Your task to perform on an android device: turn off sleep mode Image 0: 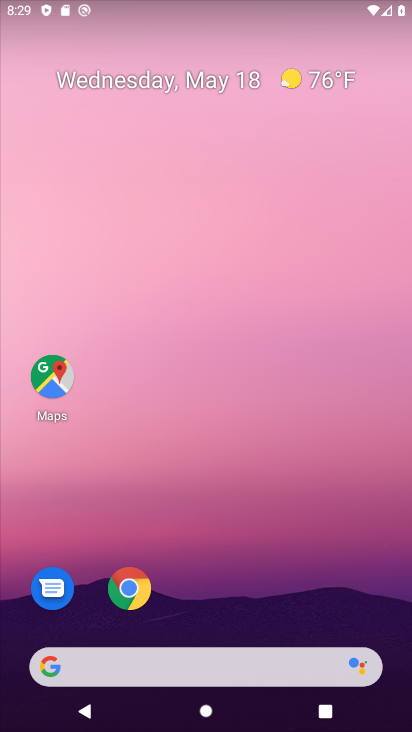
Step 0: drag from (303, 619) to (329, 208)
Your task to perform on an android device: turn off sleep mode Image 1: 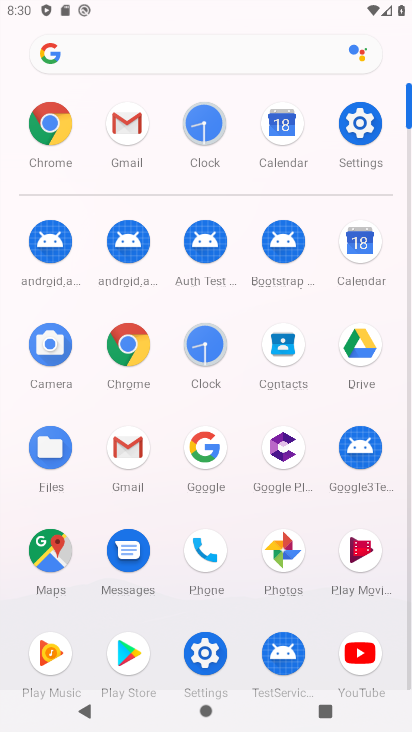
Step 1: click (349, 159)
Your task to perform on an android device: turn off sleep mode Image 2: 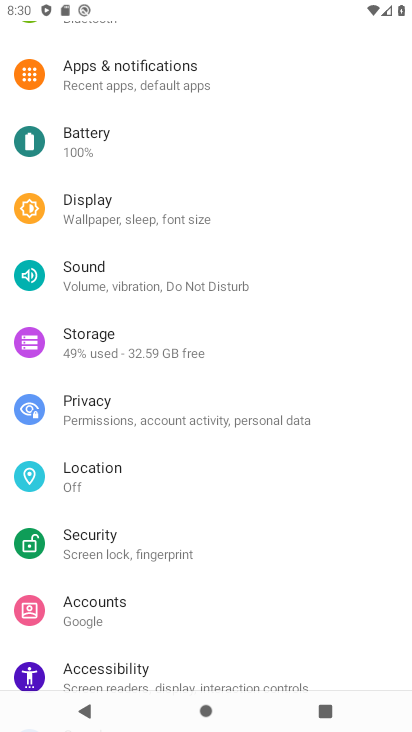
Step 2: click (229, 234)
Your task to perform on an android device: turn off sleep mode Image 3: 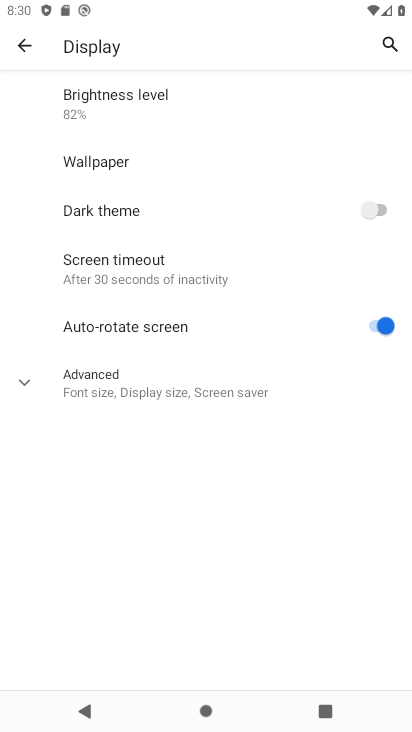
Step 3: click (155, 275)
Your task to perform on an android device: turn off sleep mode Image 4: 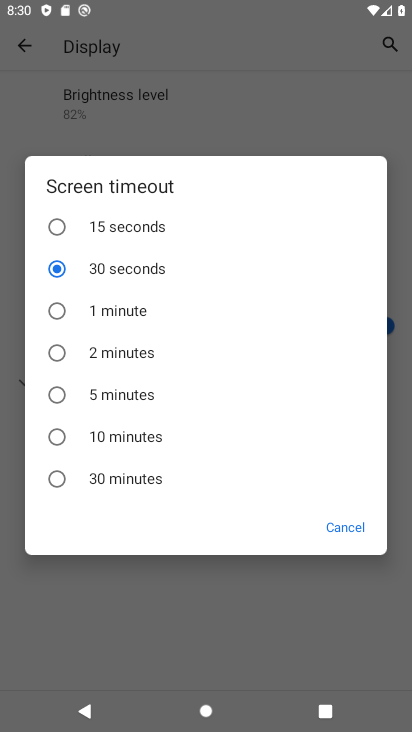
Step 4: click (146, 336)
Your task to perform on an android device: turn off sleep mode Image 5: 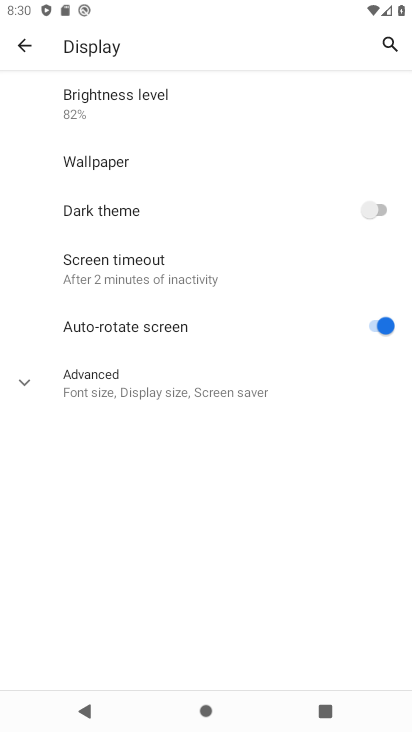
Step 5: task complete